Your task to perform on an android device: uninstall "Chime – Mobile Banking" Image 0: 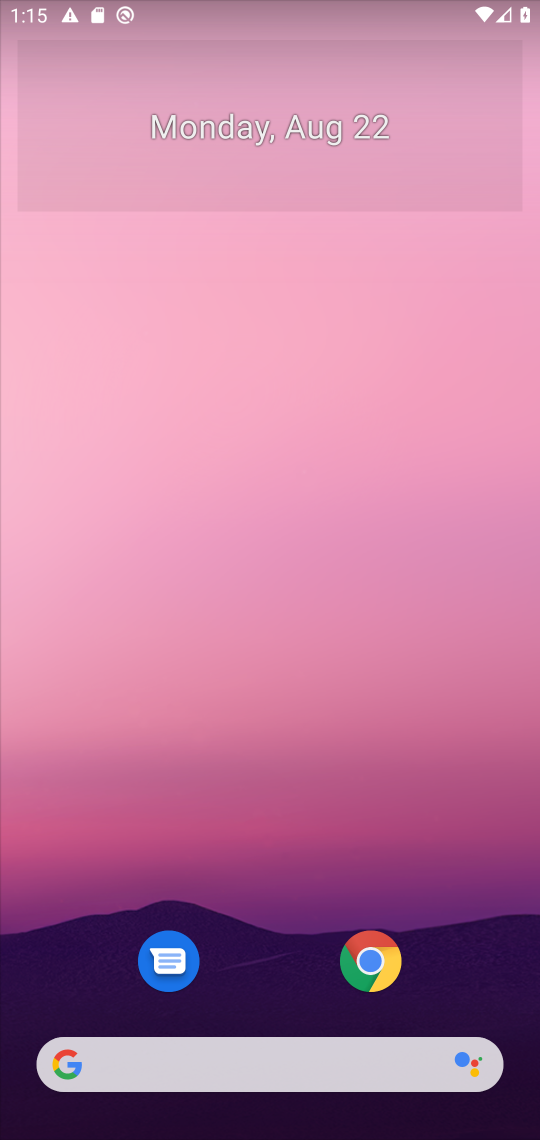
Step 0: drag from (476, 929) to (473, 168)
Your task to perform on an android device: uninstall "Chime – Mobile Banking" Image 1: 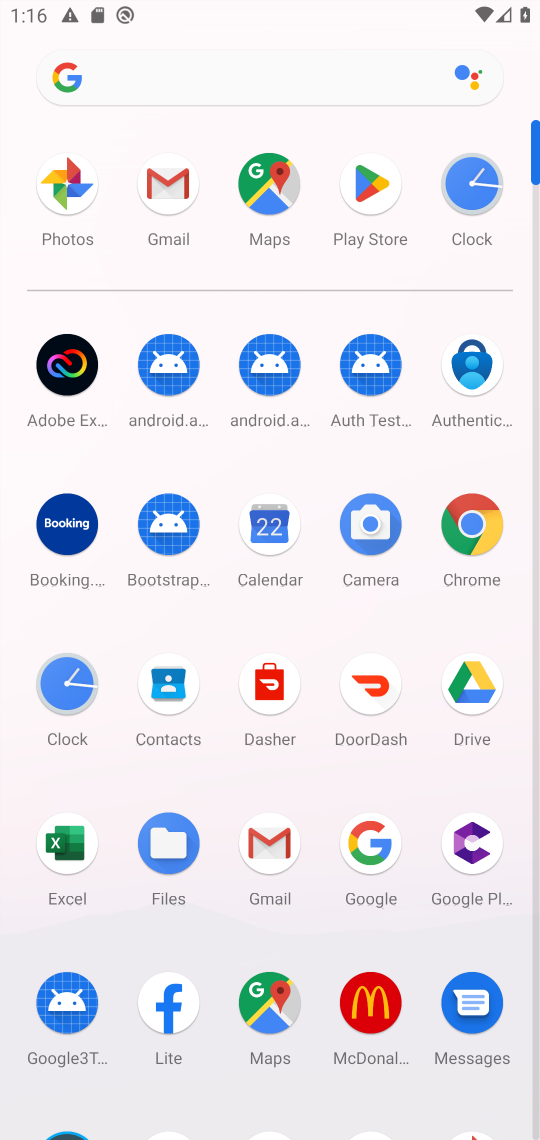
Step 1: click (385, 193)
Your task to perform on an android device: uninstall "Chime – Mobile Banking" Image 2: 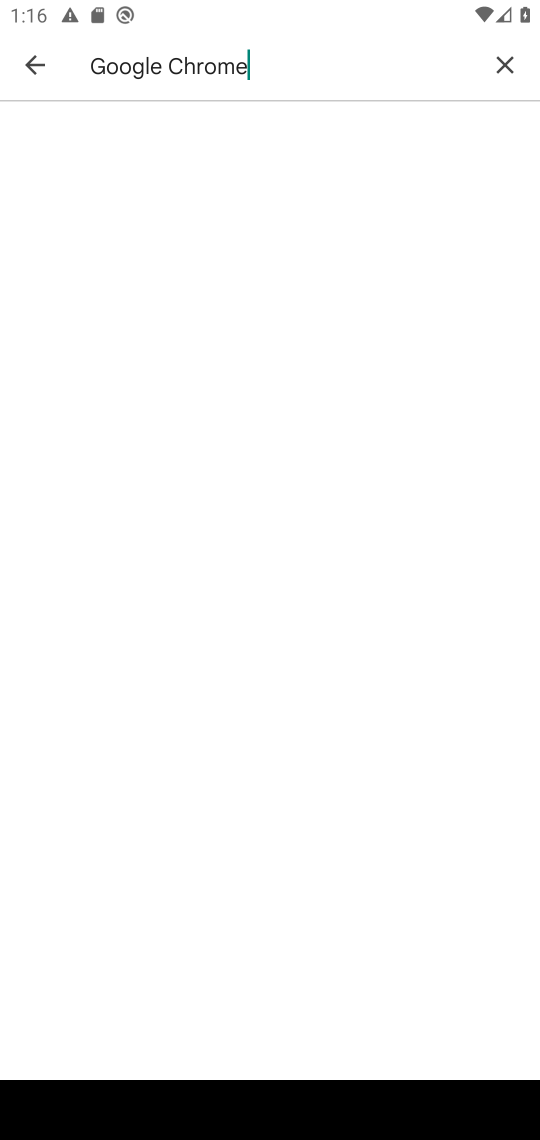
Step 2: press back button
Your task to perform on an android device: uninstall "Chime – Mobile Banking" Image 3: 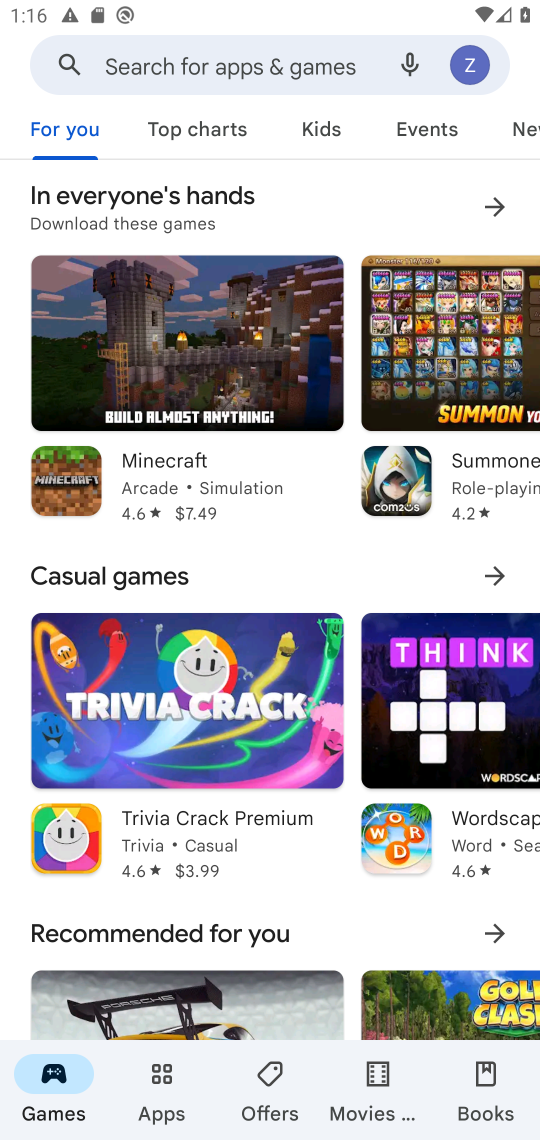
Step 3: click (300, 62)
Your task to perform on an android device: uninstall "Chime – Mobile Banking" Image 4: 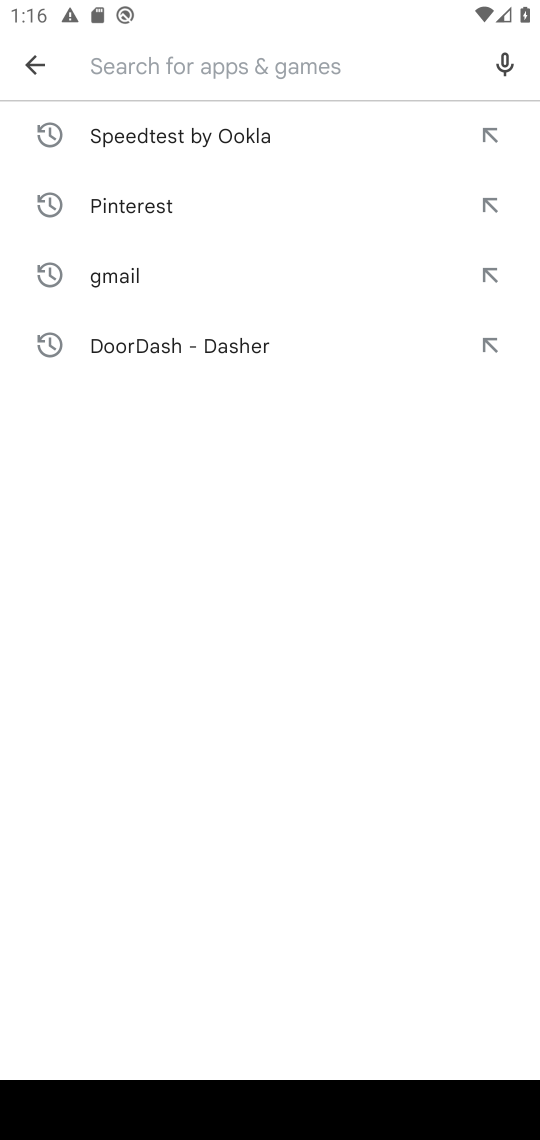
Step 4: press enter
Your task to perform on an android device: uninstall "Chime – Mobile Banking" Image 5: 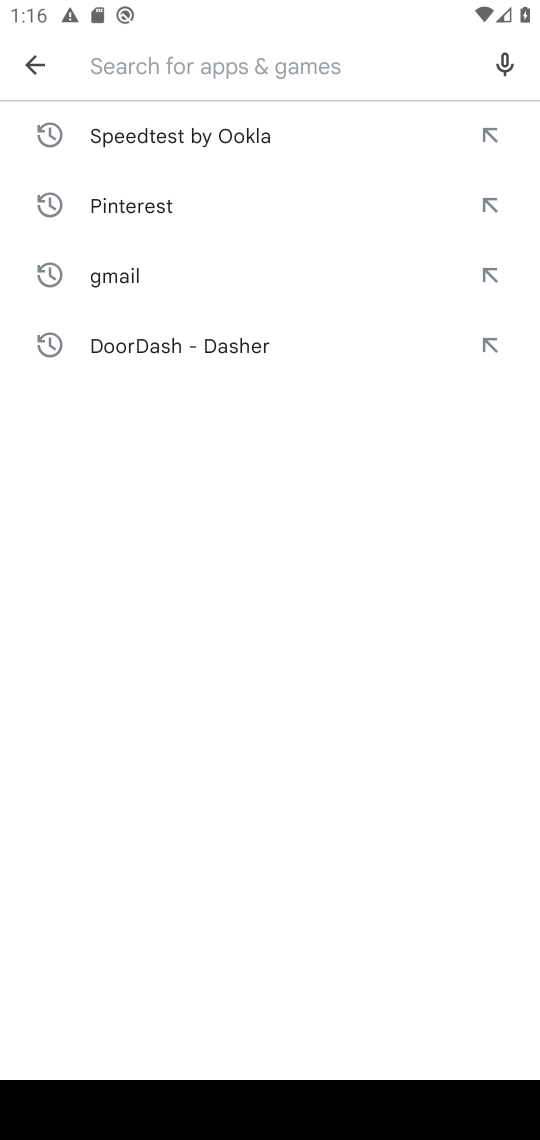
Step 5: type "Chime – Mobile Banking"
Your task to perform on an android device: uninstall "Chime – Mobile Banking" Image 6: 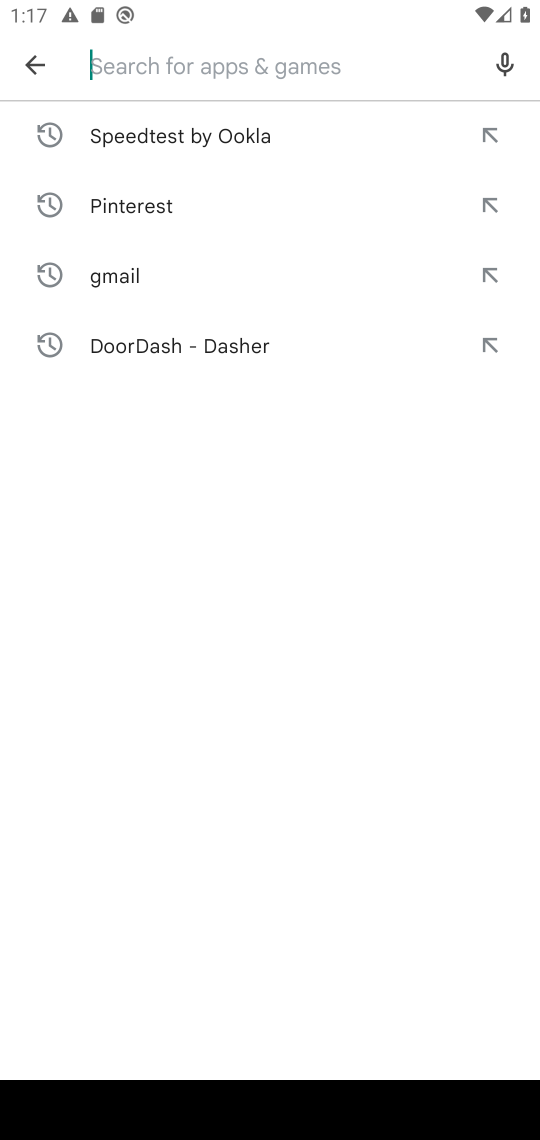
Step 6: task complete